Your task to perform on an android device: toggle notification dots Image 0: 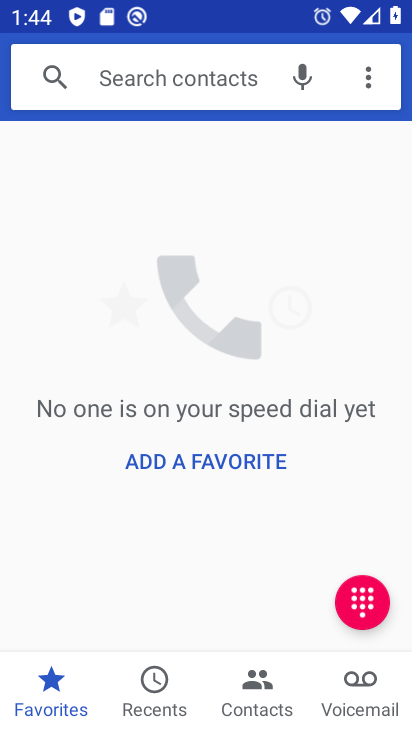
Step 0: press home button
Your task to perform on an android device: toggle notification dots Image 1: 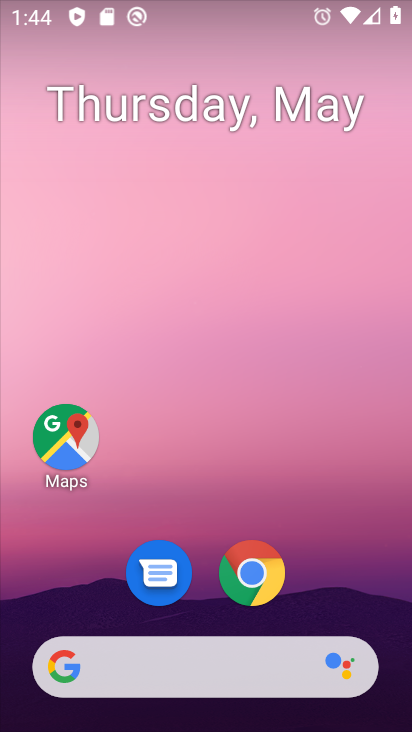
Step 1: drag from (408, 563) to (393, 276)
Your task to perform on an android device: toggle notification dots Image 2: 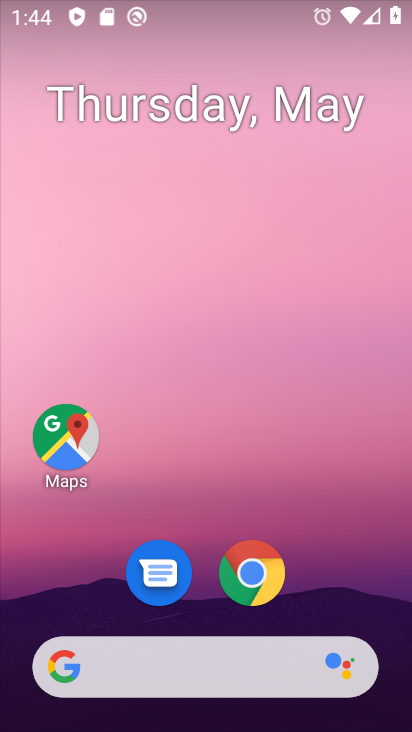
Step 2: drag from (369, 567) to (341, 195)
Your task to perform on an android device: toggle notification dots Image 3: 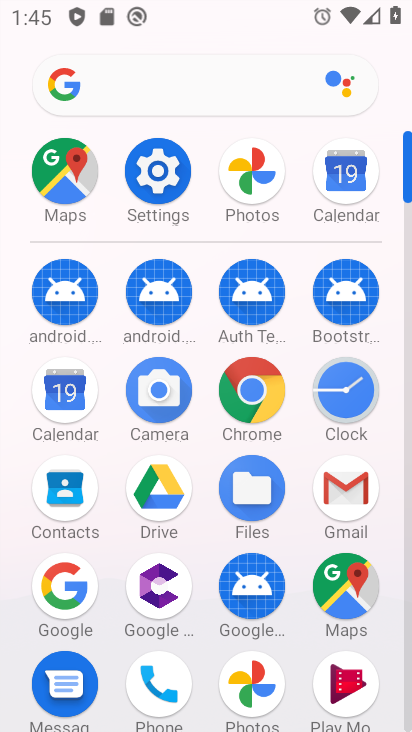
Step 3: click (146, 181)
Your task to perform on an android device: toggle notification dots Image 4: 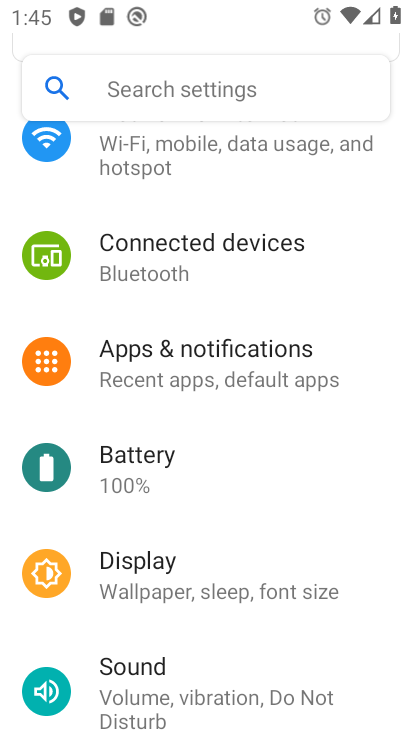
Step 4: click (210, 361)
Your task to perform on an android device: toggle notification dots Image 5: 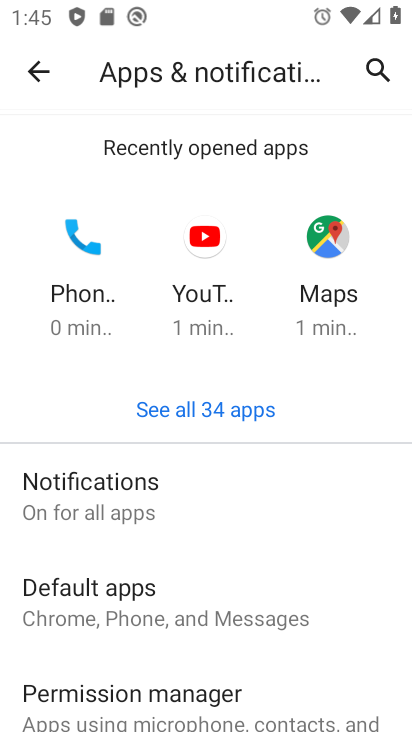
Step 5: drag from (341, 678) to (348, 449)
Your task to perform on an android device: toggle notification dots Image 6: 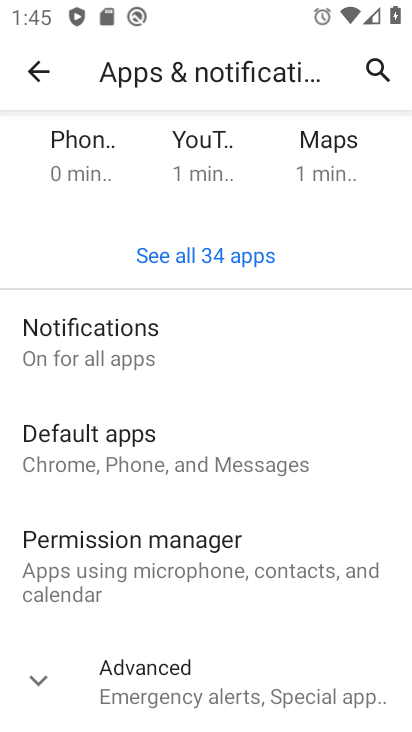
Step 6: click (85, 334)
Your task to perform on an android device: toggle notification dots Image 7: 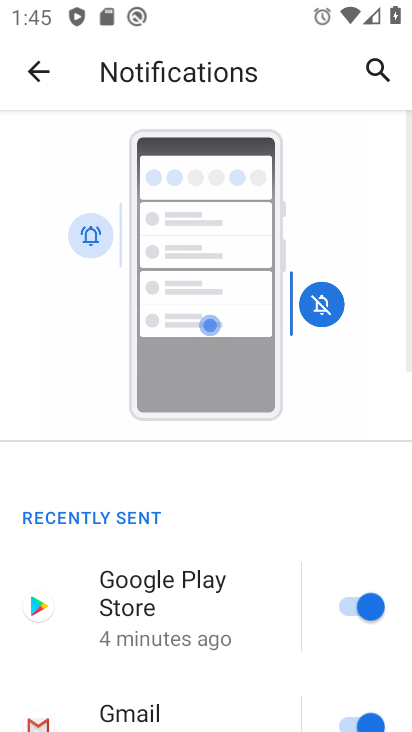
Step 7: drag from (273, 701) to (280, 165)
Your task to perform on an android device: toggle notification dots Image 8: 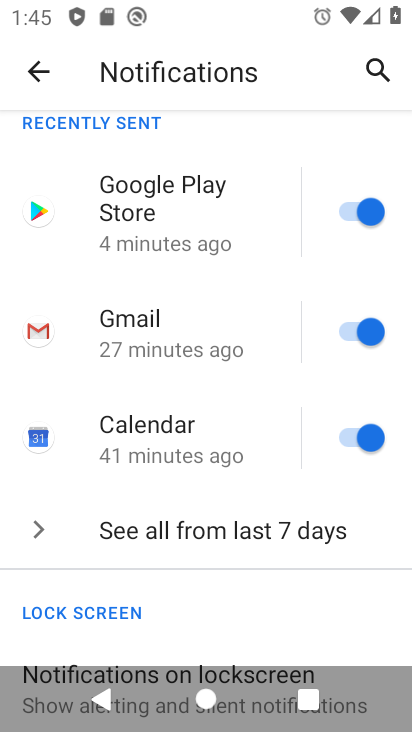
Step 8: drag from (244, 640) to (280, 191)
Your task to perform on an android device: toggle notification dots Image 9: 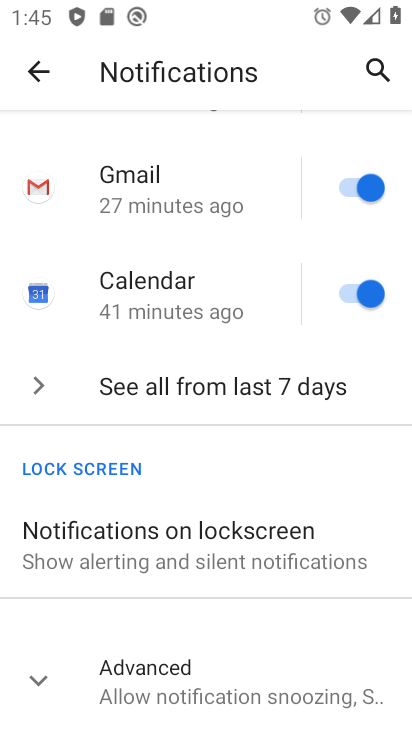
Step 9: click (24, 680)
Your task to perform on an android device: toggle notification dots Image 10: 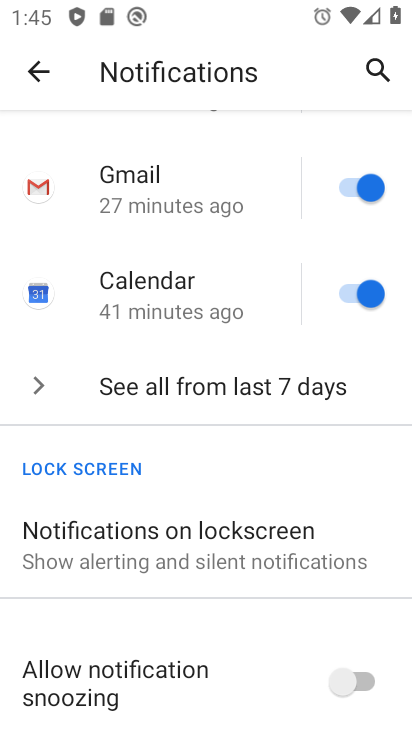
Step 10: drag from (224, 673) to (266, 386)
Your task to perform on an android device: toggle notification dots Image 11: 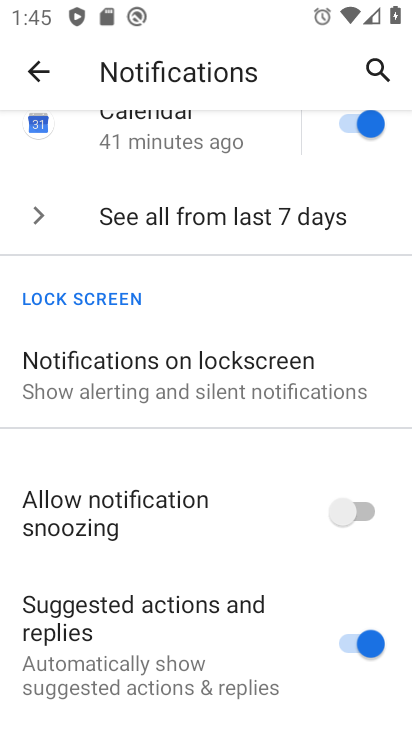
Step 11: drag from (264, 671) to (309, 380)
Your task to perform on an android device: toggle notification dots Image 12: 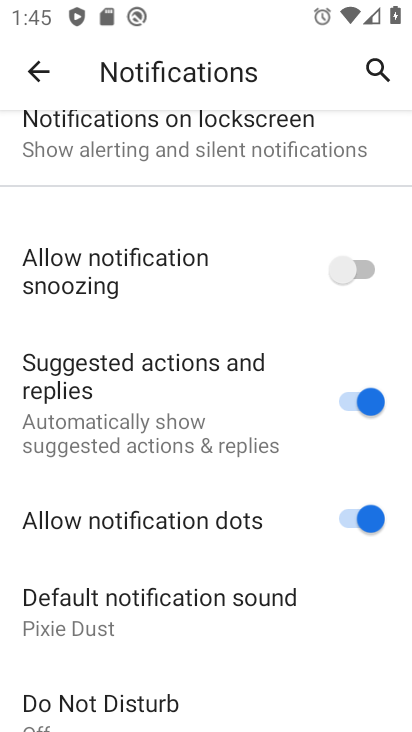
Step 12: click (352, 521)
Your task to perform on an android device: toggle notification dots Image 13: 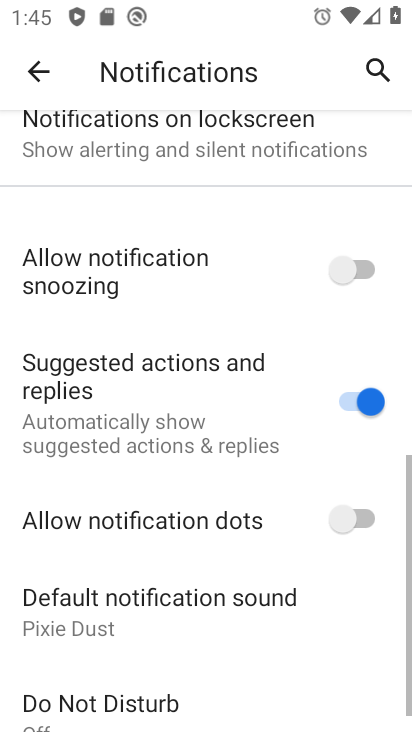
Step 13: task complete